Your task to perform on an android device: Open CNN.com Image 0: 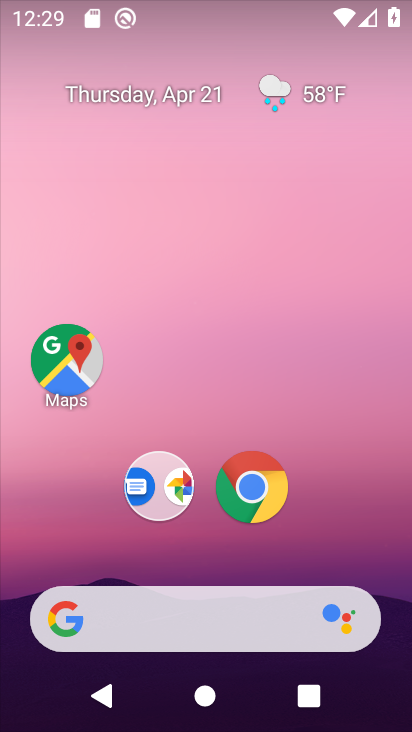
Step 0: drag from (254, 650) to (361, 89)
Your task to perform on an android device: Open CNN.com Image 1: 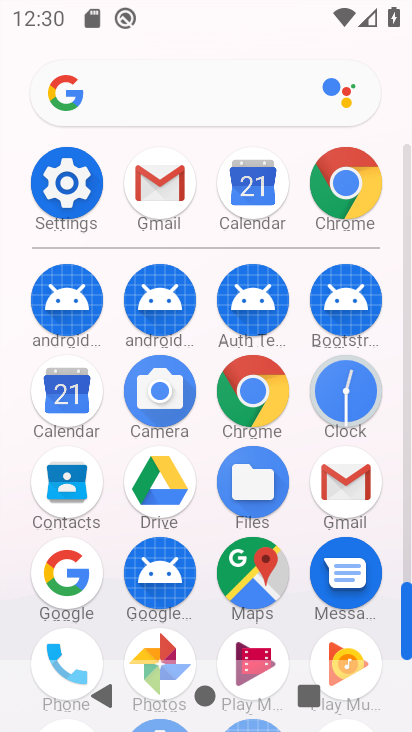
Step 1: click (359, 177)
Your task to perform on an android device: Open CNN.com Image 2: 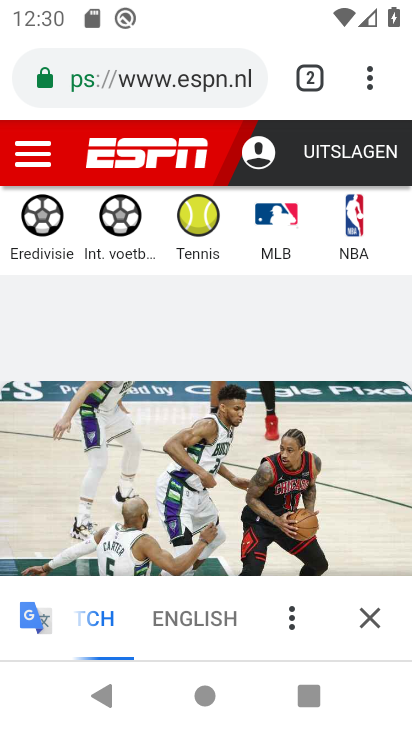
Step 2: click (209, 80)
Your task to perform on an android device: Open CNN.com Image 3: 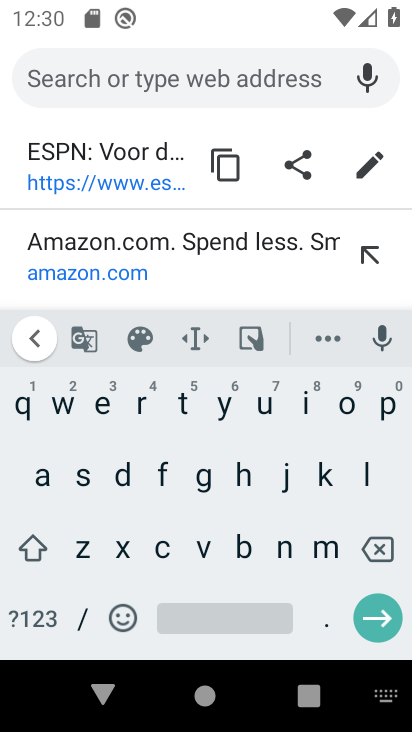
Step 3: click (157, 549)
Your task to perform on an android device: Open CNN.com Image 4: 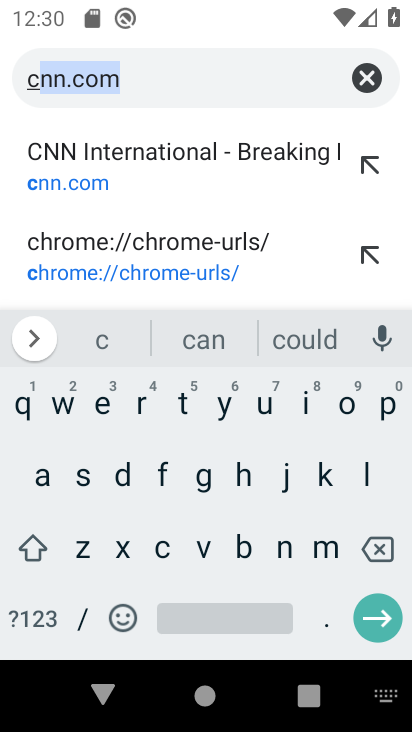
Step 4: click (154, 78)
Your task to perform on an android device: Open CNN.com Image 5: 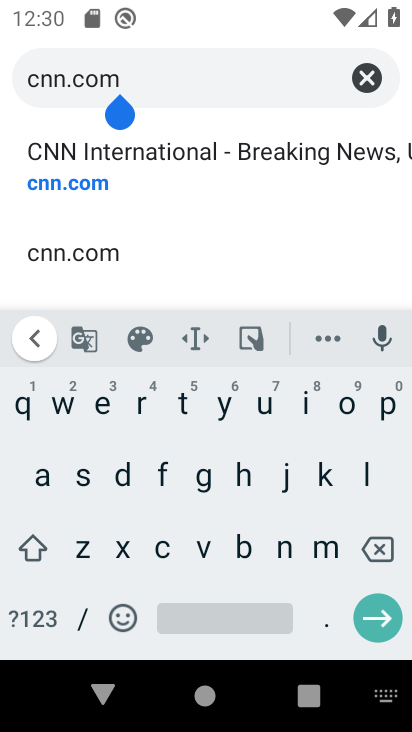
Step 5: click (379, 610)
Your task to perform on an android device: Open CNN.com Image 6: 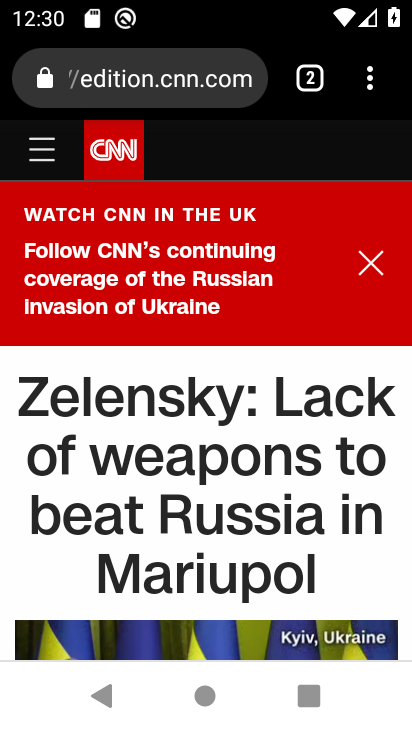
Step 6: click (370, 273)
Your task to perform on an android device: Open CNN.com Image 7: 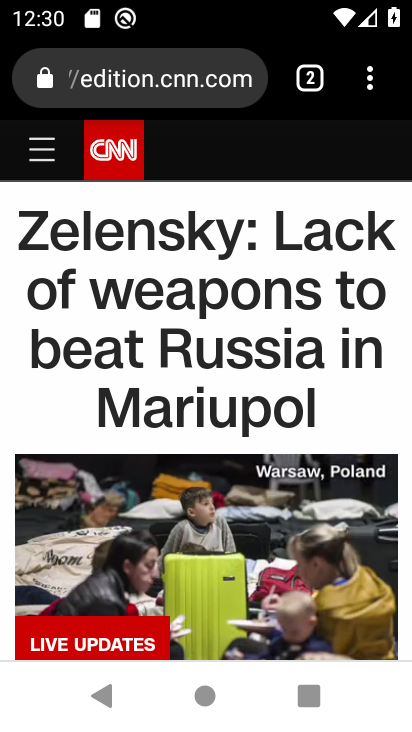
Step 7: task complete